Your task to perform on an android device: Open Wikipedia Image 0: 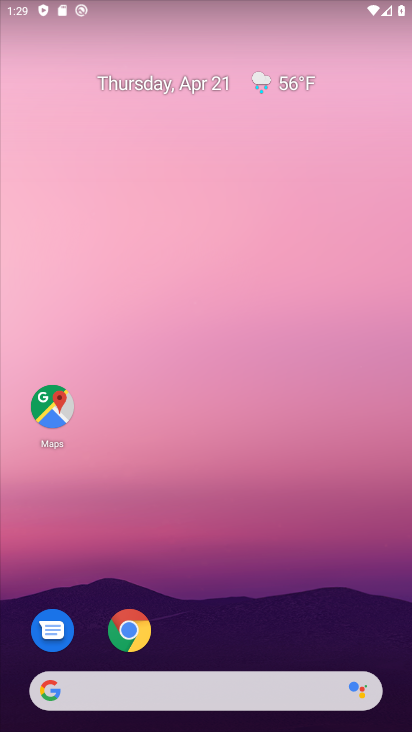
Step 0: drag from (308, 655) to (225, 119)
Your task to perform on an android device: Open Wikipedia Image 1: 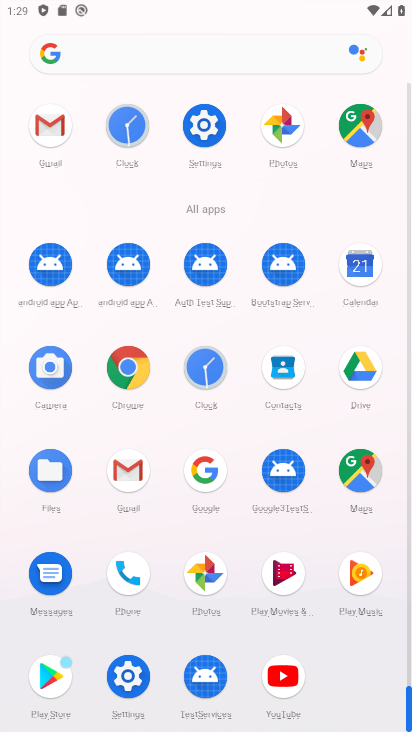
Step 1: click (140, 385)
Your task to perform on an android device: Open Wikipedia Image 2: 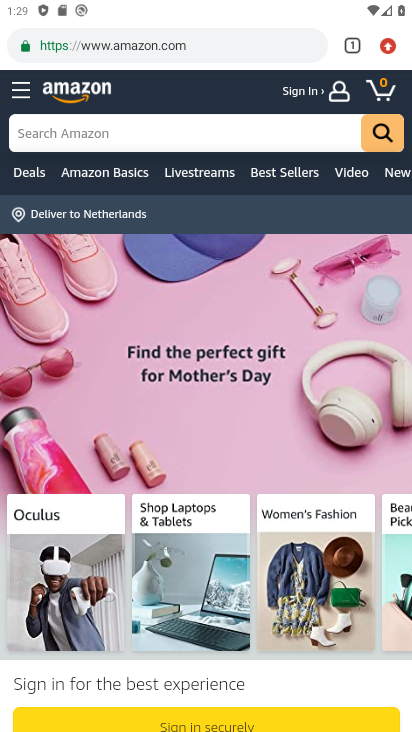
Step 2: click (358, 51)
Your task to perform on an android device: Open Wikipedia Image 3: 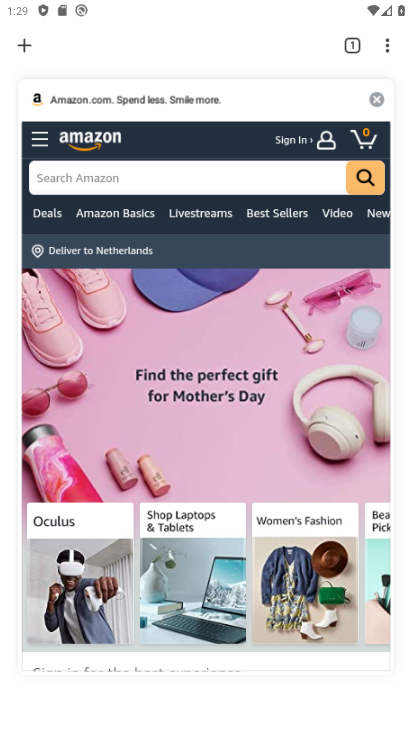
Step 3: click (378, 100)
Your task to perform on an android device: Open Wikipedia Image 4: 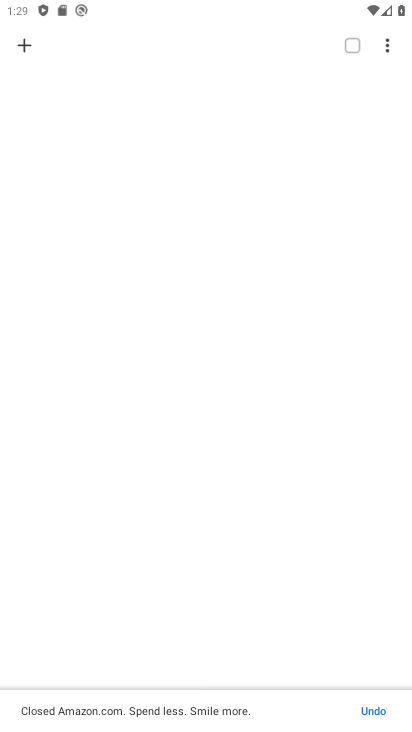
Step 4: click (22, 49)
Your task to perform on an android device: Open Wikipedia Image 5: 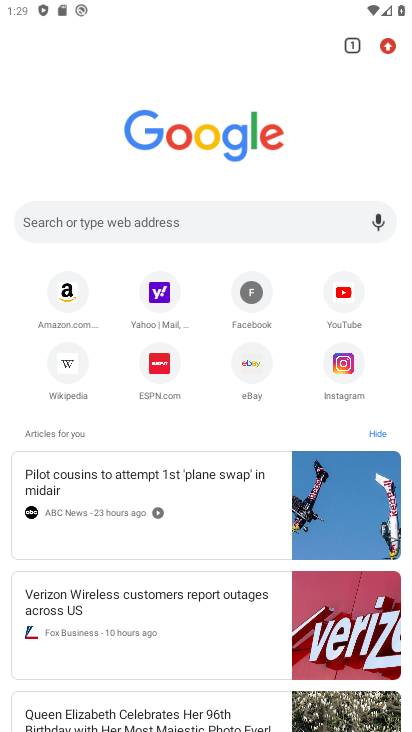
Step 5: click (61, 368)
Your task to perform on an android device: Open Wikipedia Image 6: 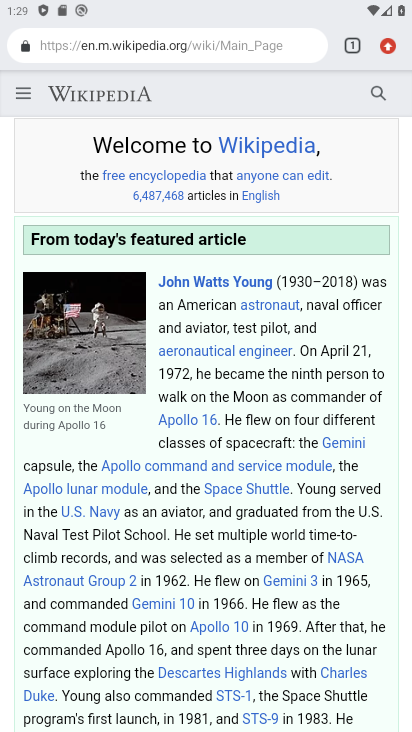
Step 6: task complete